Your task to perform on an android device: turn on bluetooth scan Image 0: 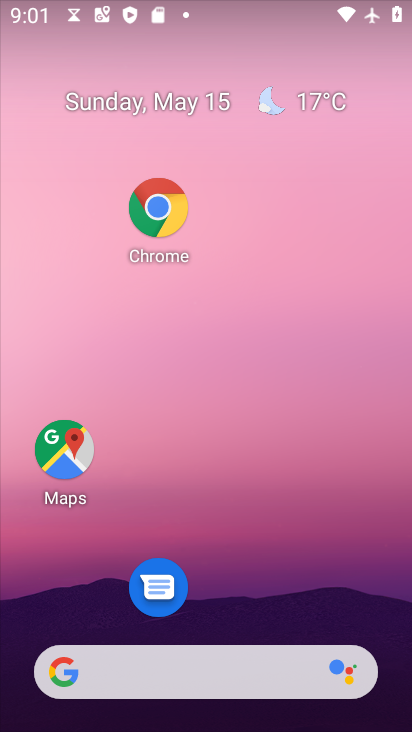
Step 0: drag from (317, 635) to (158, 107)
Your task to perform on an android device: turn on bluetooth scan Image 1: 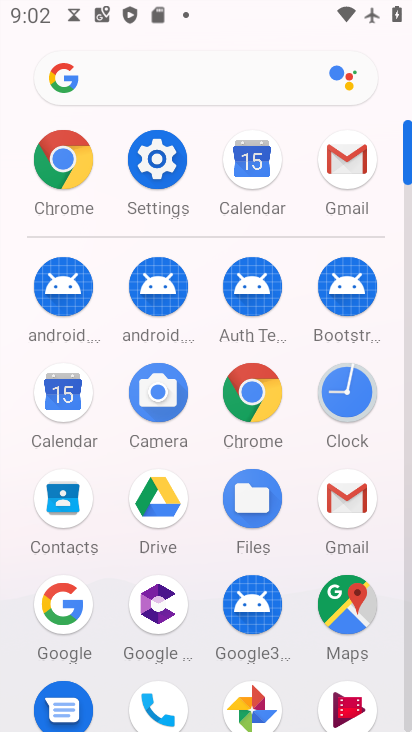
Step 1: click (148, 159)
Your task to perform on an android device: turn on bluetooth scan Image 2: 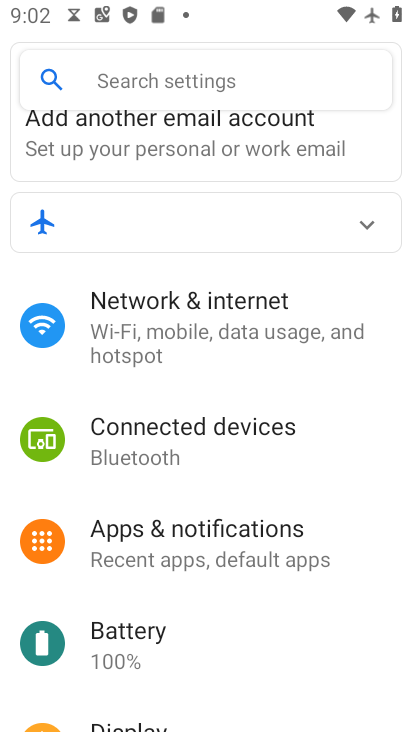
Step 2: drag from (182, 503) to (239, 237)
Your task to perform on an android device: turn on bluetooth scan Image 3: 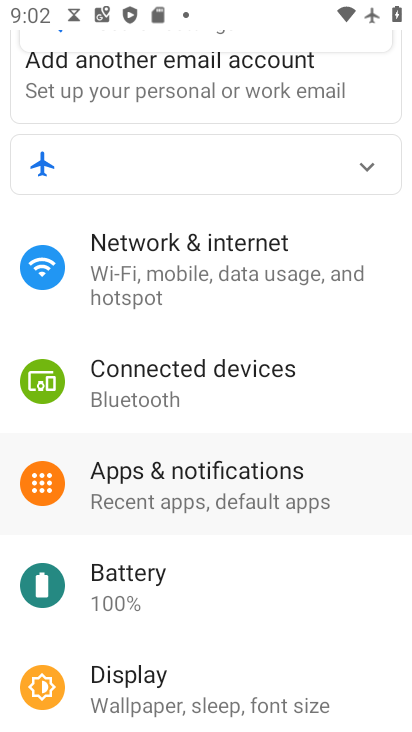
Step 3: click (200, 179)
Your task to perform on an android device: turn on bluetooth scan Image 4: 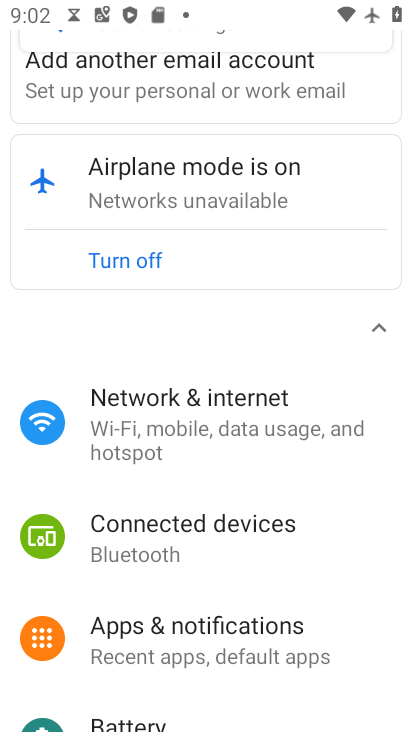
Step 4: drag from (257, 615) to (255, 264)
Your task to perform on an android device: turn on bluetooth scan Image 5: 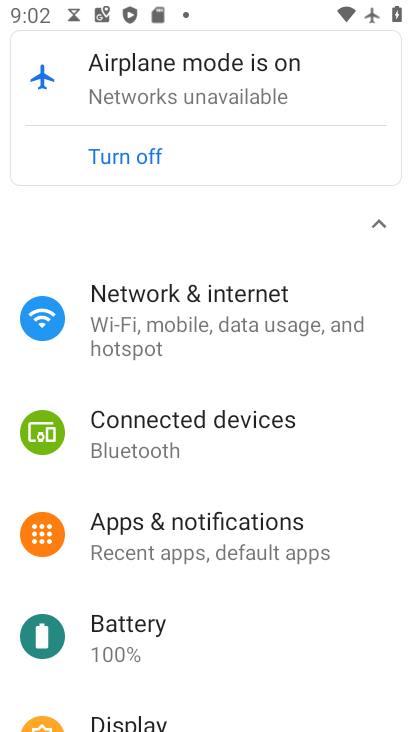
Step 5: drag from (159, 565) to (152, 227)
Your task to perform on an android device: turn on bluetooth scan Image 6: 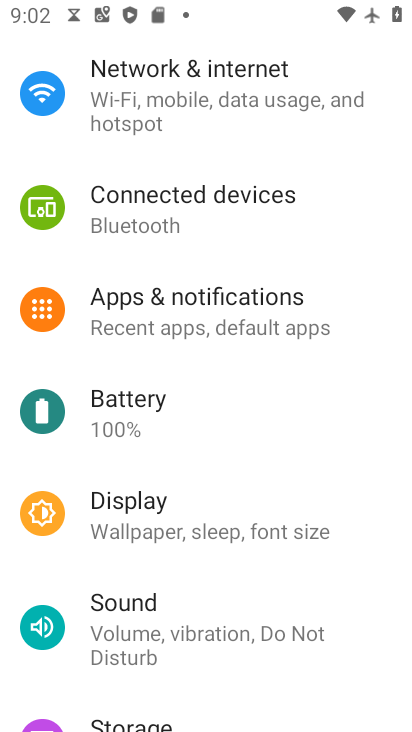
Step 6: drag from (259, 502) to (244, 115)
Your task to perform on an android device: turn on bluetooth scan Image 7: 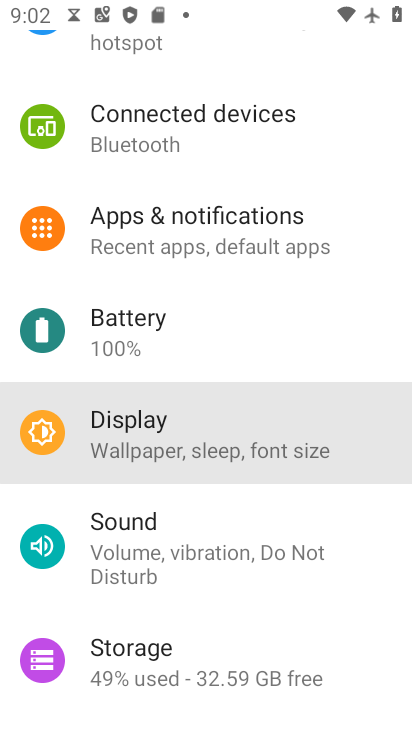
Step 7: drag from (219, 448) to (242, 103)
Your task to perform on an android device: turn on bluetooth scan Image 8: 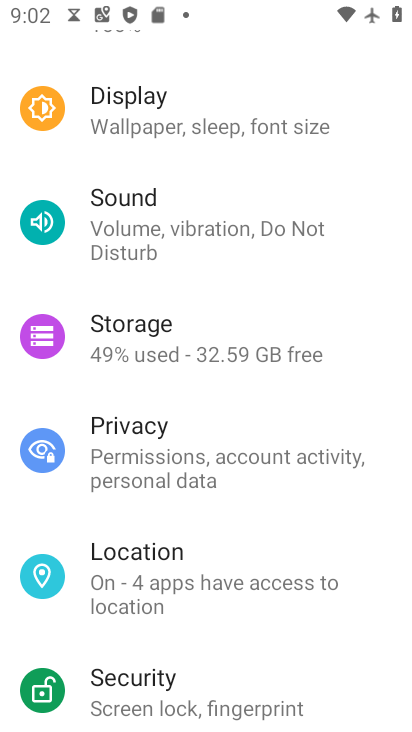
Step 8: click (151, 575)
Your task to perform on an android device: turn on bluetooth scan Image 9: 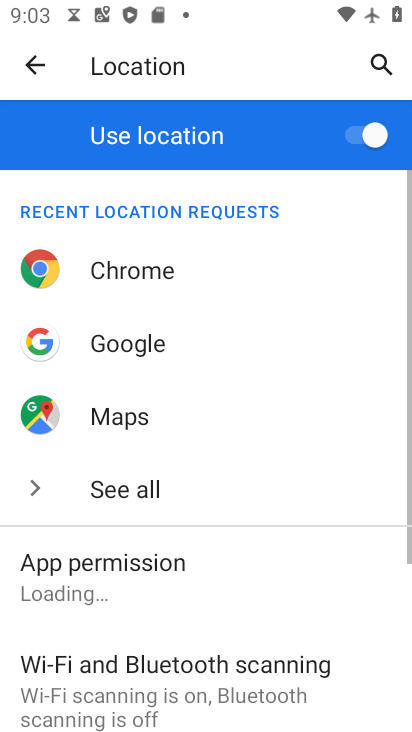
Step 9: drag from (155, 624) to (214, 66)
Your task to perform on an android device: turn on bluetooth scan Image 10: 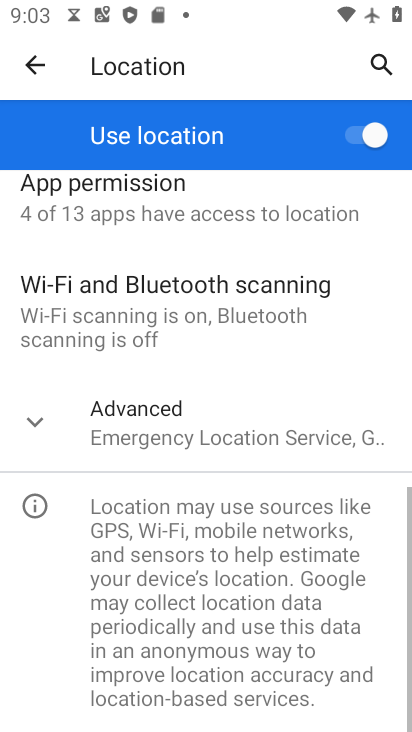
Step 10: click (63, 199)
Your task to perform on an android device: turn on bluetooth scan Image 11: 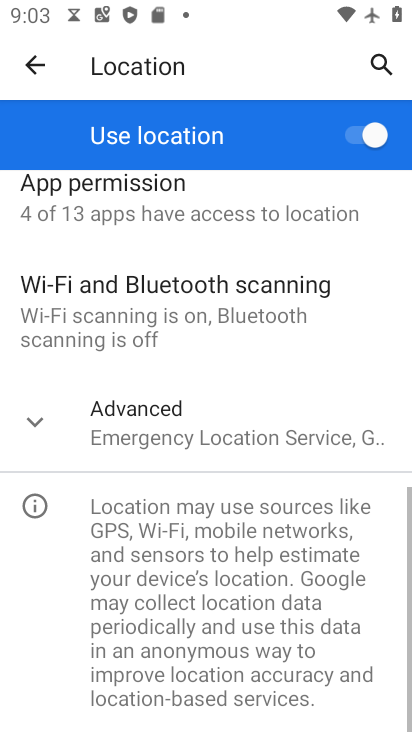
Step 11: click (62, 198)
Your task to perform on an android device: turn on bluetooth scan Image 12: 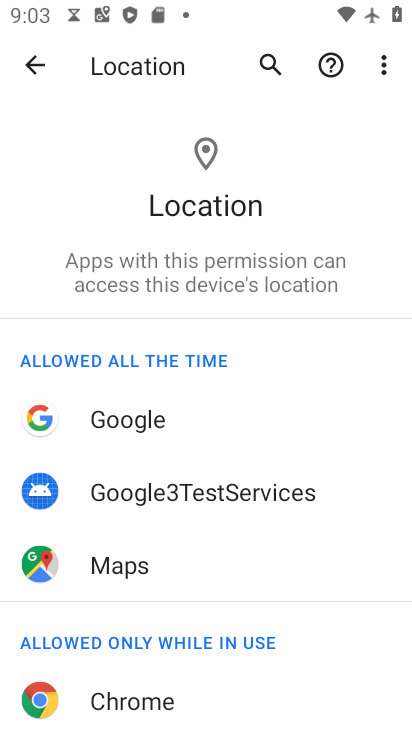
Step 12: drag from (249, 413) to (310, 123)
Your task to perform on an android device: turn on bluetooth scan Image 13: 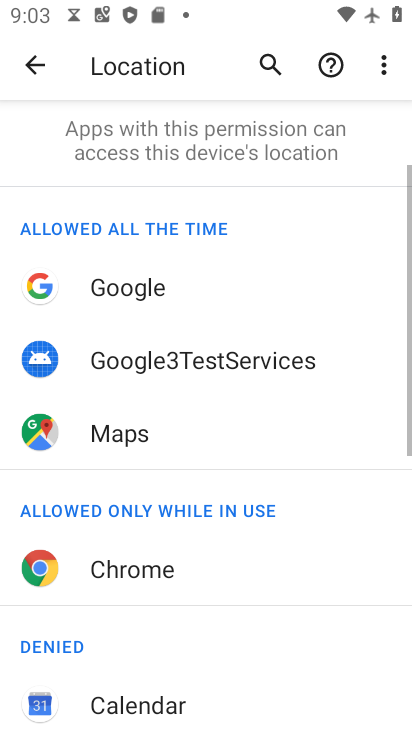
Step 13: drag from (131, 506) to (145, 81)
Your task to perform on an android device: turn on bluetooth scan Image 14: 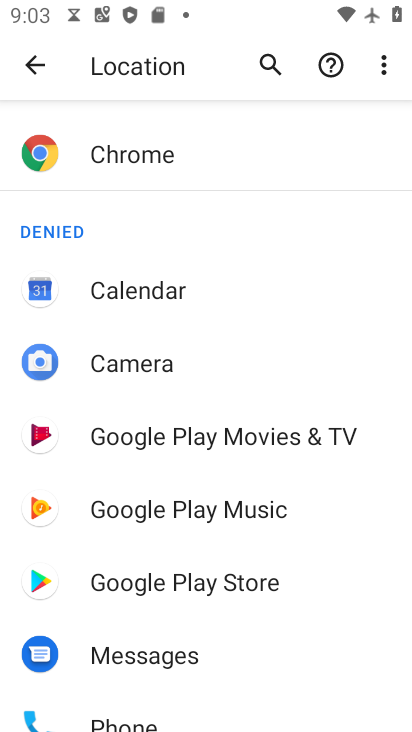
Step 14: drag from (133, 537) to (44, 0)
Your task to perform on an android device: turn on bluetooth scan Image 15: 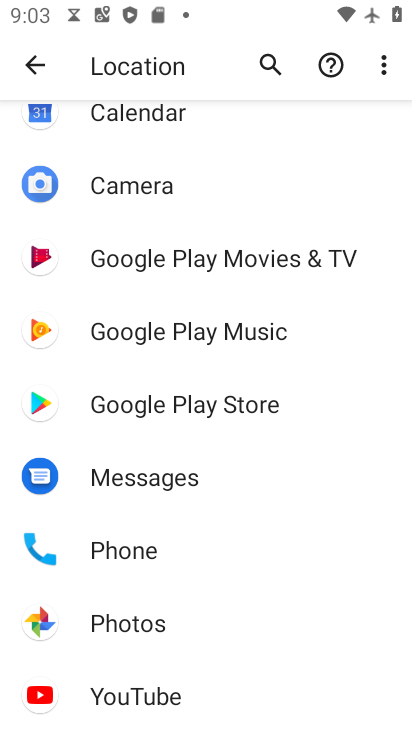
Step 15: click (28, 64)
Your task to perform on an android device: turn on bluetooth scan Image 16: 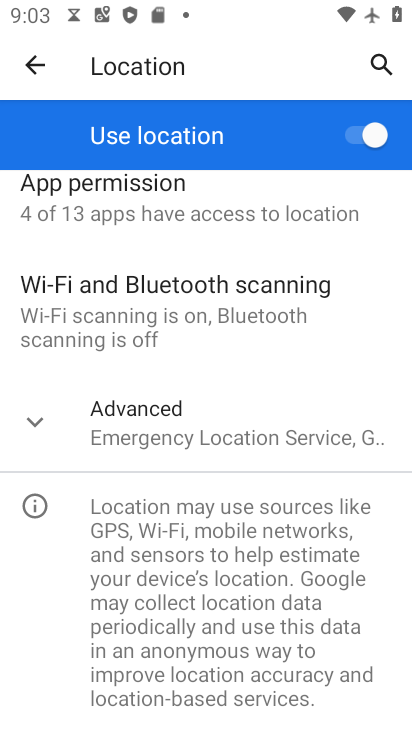
Step 16: click (177, 312)
Your task to perform on an android device: turn on bluetooth scan Image 17: 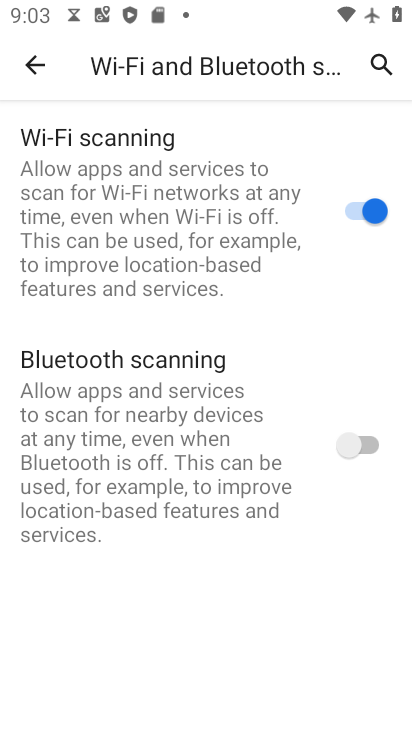
Step 17: click (148, 309)
Your task to perform on an android device: turn on bluetooth scan Image 18: 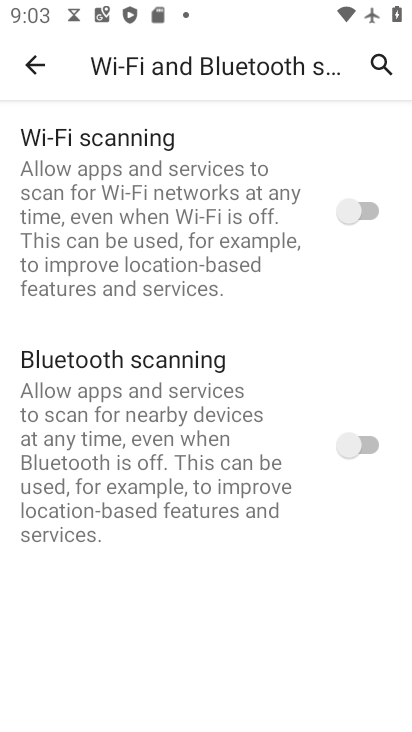
Step 18: click (338, 446)
Your task to perform on an android device: turn on bluetooth scan Image 19: 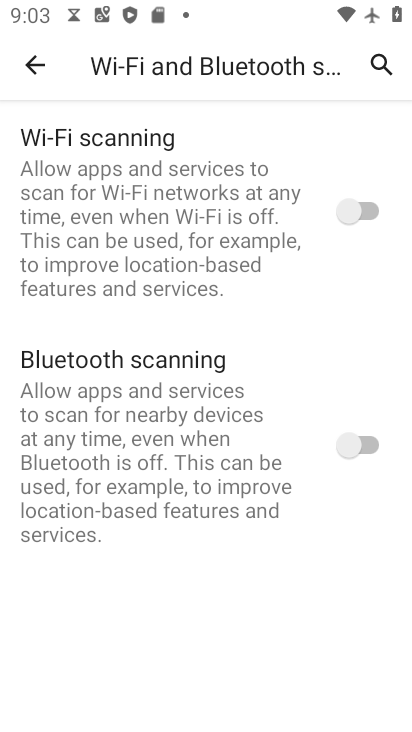
Step 19: click (347, 443)
Your task to perform on an android device: turn on bluetooth scan Image 20: 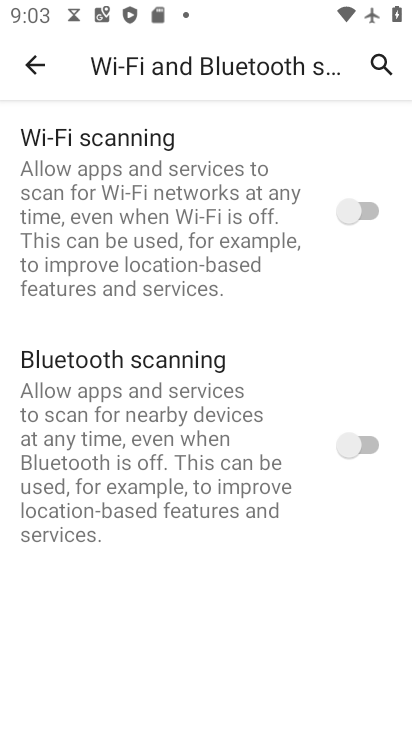
Step 20: click (355, 442)
Your task to perform on an android device: turn on bluetooth scan Image 21: 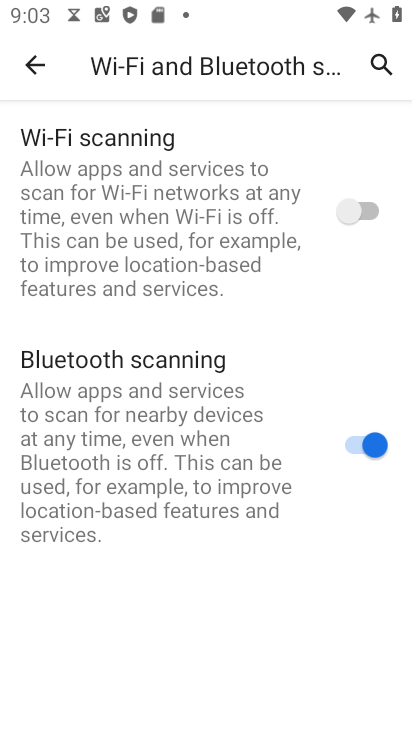
Step 21: task complete